Your task to perform on an android device: Open the web browser Image 0: 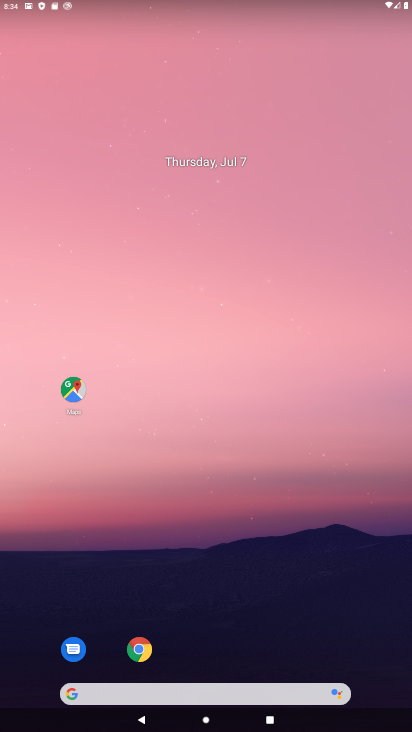
Step 0: drag from (212, 653) to (309, 53)
Your task to perform on an android device: Open the web browser Image 1: 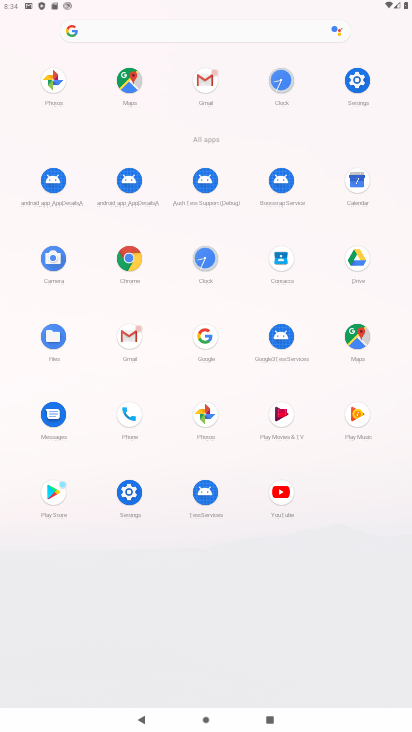
Step 1: click (208, 345)
Your task to perform on an android device: Open the web browser Image 2: 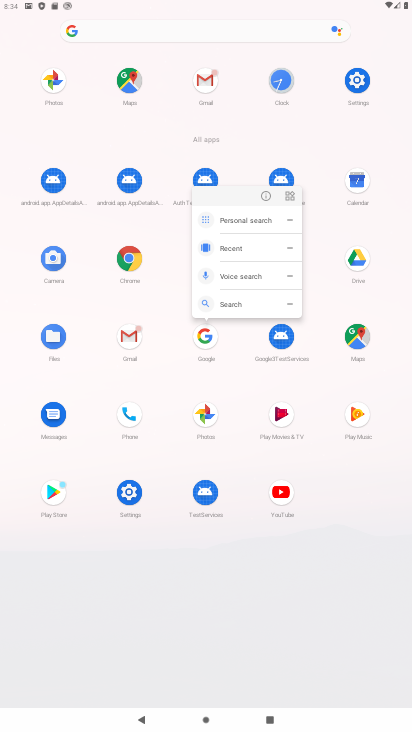
Step 2: click (206, 338)
Your task to perform on an android device: Open the web browser Image 3: 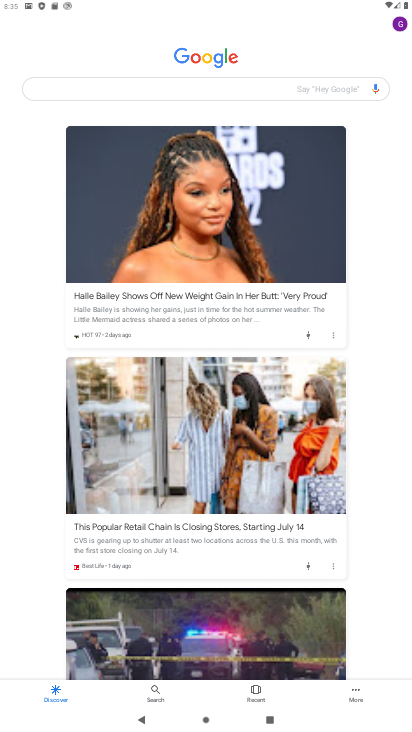
Step 3: task complete